Your task to perform on an android device: check battery use Image 0: 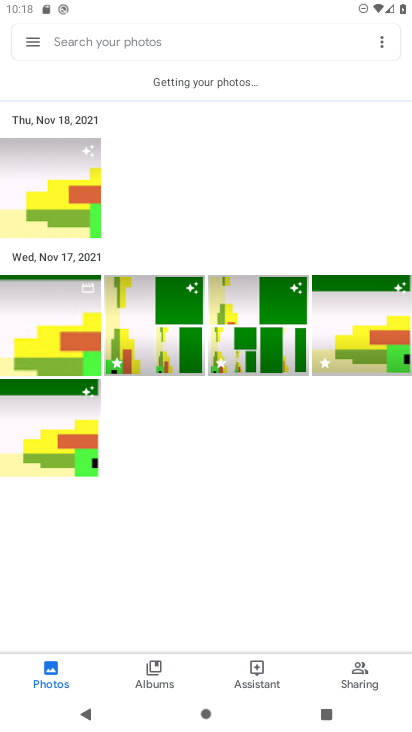
Step 0: press home button
Your task to perform on an android device: check battery use Image 1: 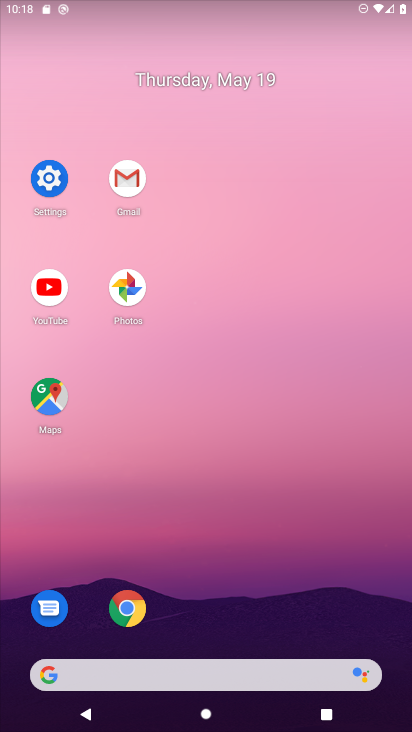
Step 1: click (41, 190)
Your task to perform on an android device: check battery use Image 2: 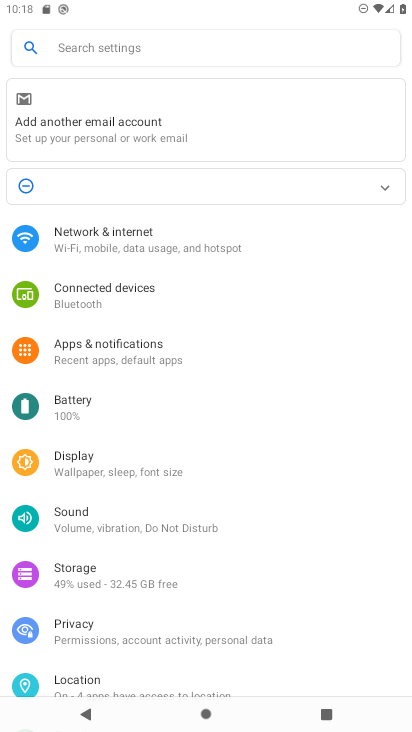
Step 2: drag from (151, 610) to (180, 258)
Your task to perform on an android device: check battery use Image 3: 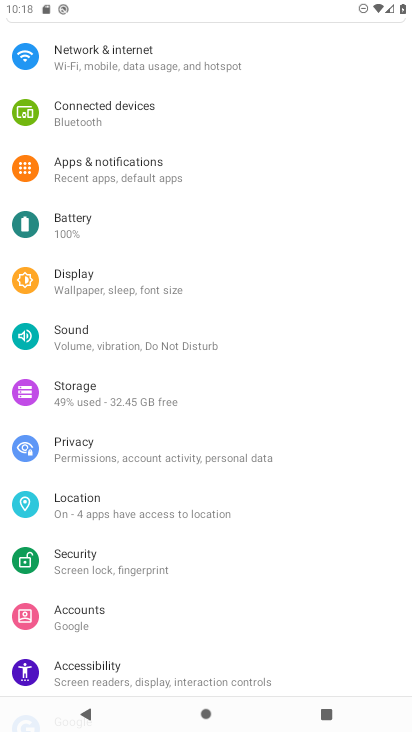
Step 3: click (75, 229)
Your task to perform on an android device: check battery use Image 4: 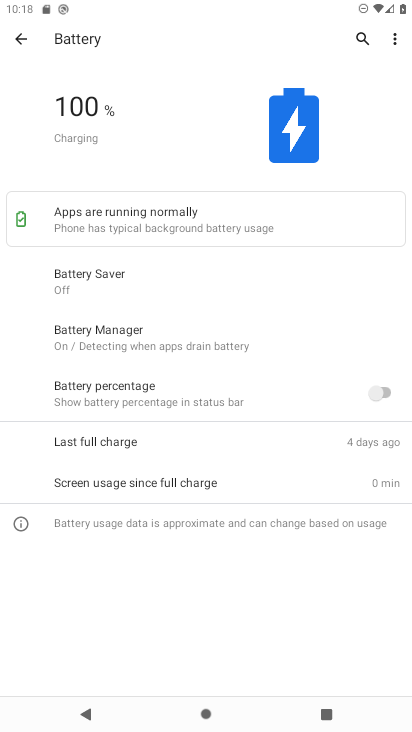
Step 4: click (408, 28)
Your task to perform on an android device: check battery use Image 5: 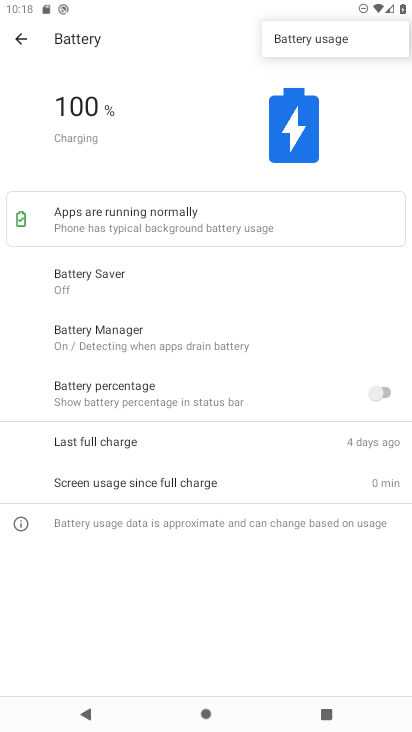
Step 5: click (312, 39)
Your task to perform on an android device: check battery use Image 6: 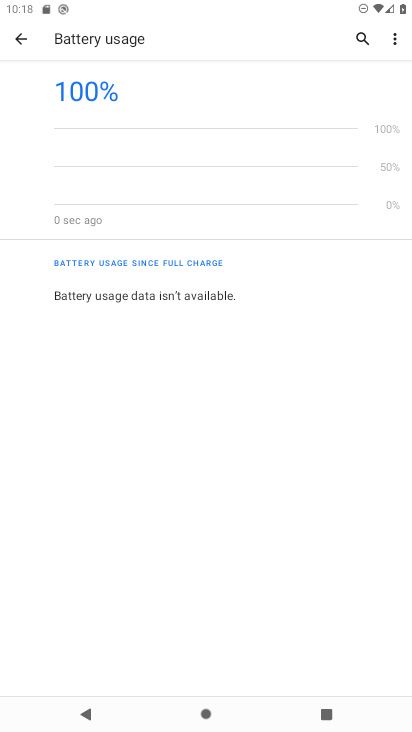
Step 6: task complete